Your task to perform on an android device: Go to Yahoo.com Image 0: 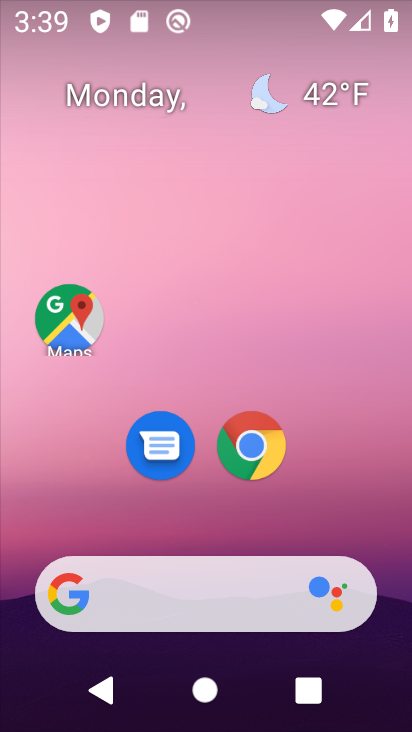
Step 0: drag from (10, 532) to (178, 0)
Your task to perform on an android device: Go to Yahoo.com Image 1: 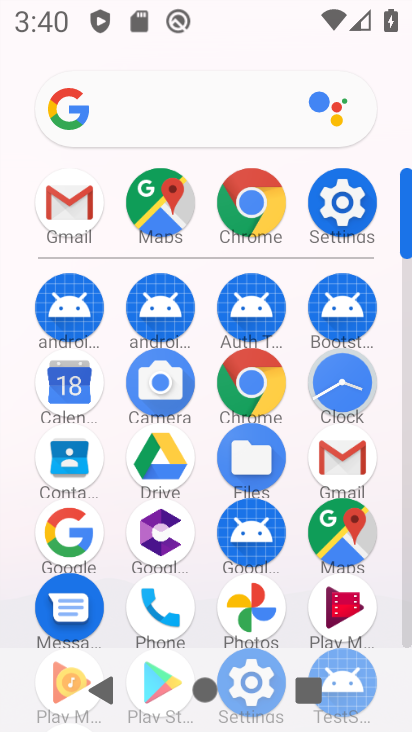
Step 1: click (235, 198)
Your task to perform on an android device: Go to Yahoo.com Image 2: 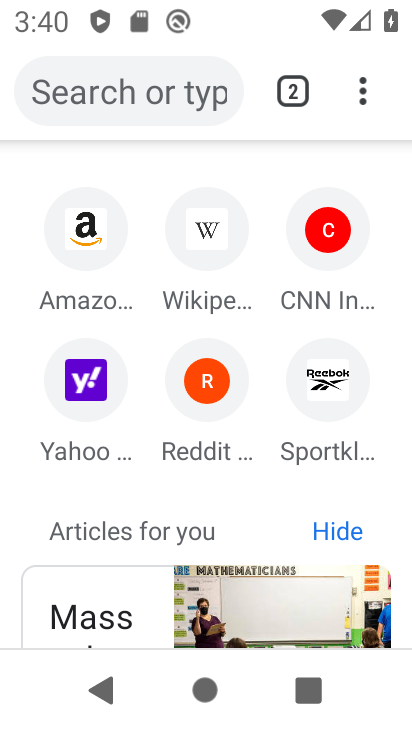
Step 2: click (91, 382)
Your task to perform on an android device: Go to Yahoo.com Image 3: 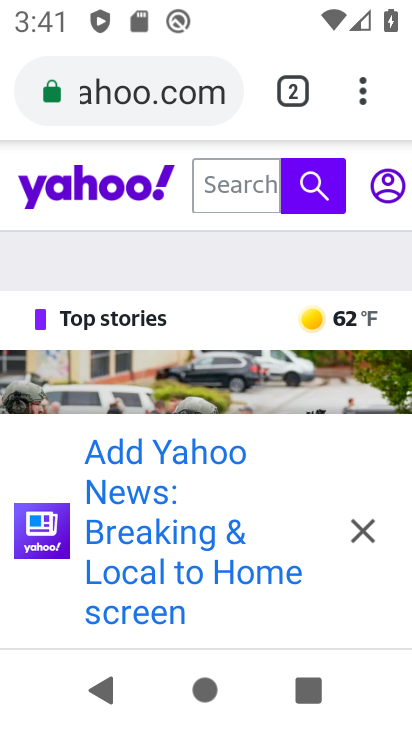
Step 3: task complete